Your task to perform on an android device: turn pop-ups on in chrome Image 0: 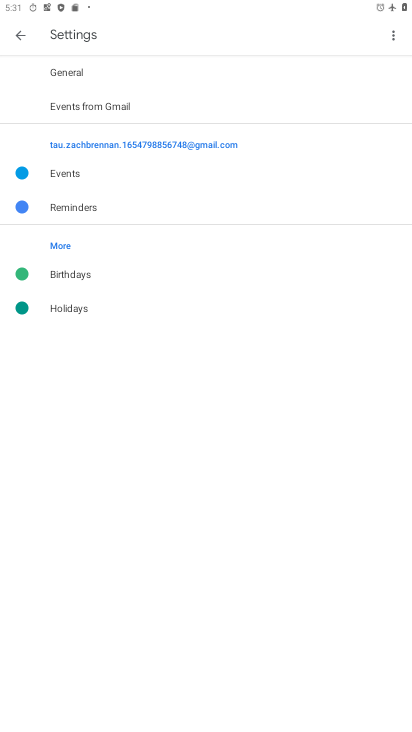
Step 0: press home button
Your task to perform on an android device: turn pop-ups on in chrome Image 1: 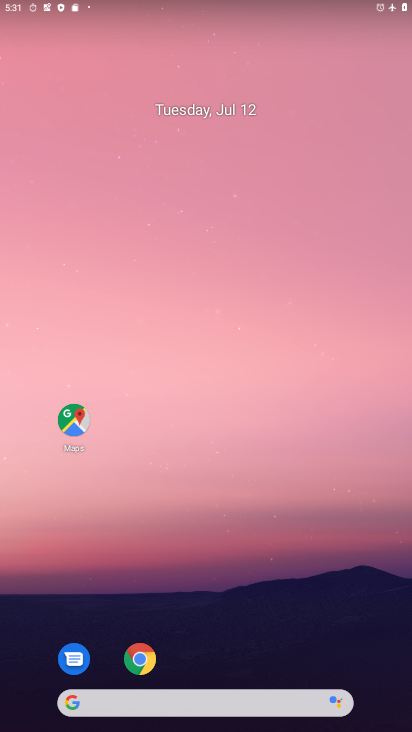
Step 1: click (139, 663)
Your task to perform on an android device: turn pop-ups on in chrome Image 2: 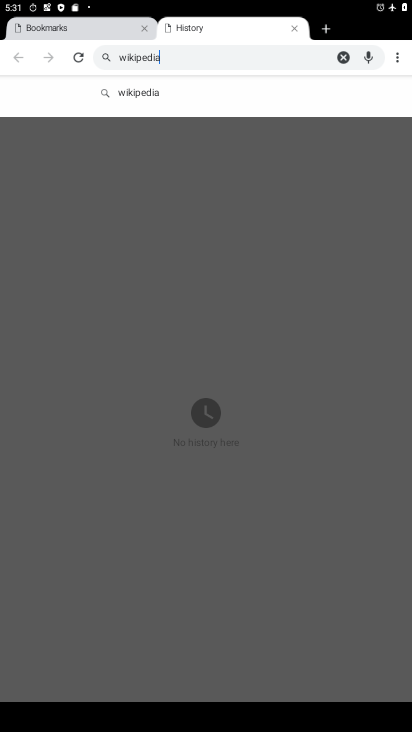
Step 2: click (398, 62)
Your task to perform on an android device: turn pop-ups on in chrome Image 3: 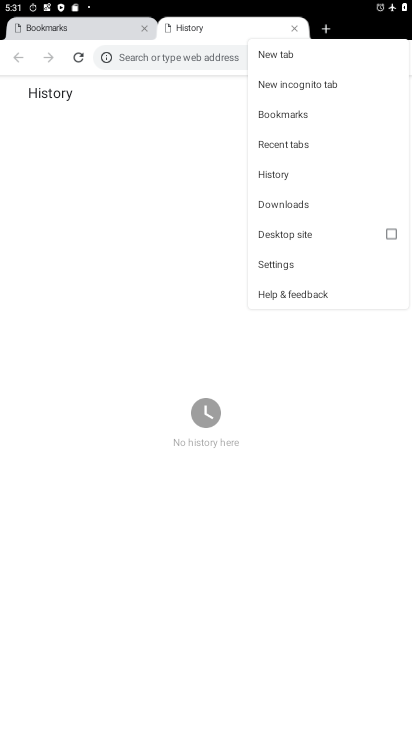
Step 3: click (272, 264)
Your task to perform on an android device: turn pop-ups on in chrome Image 4: 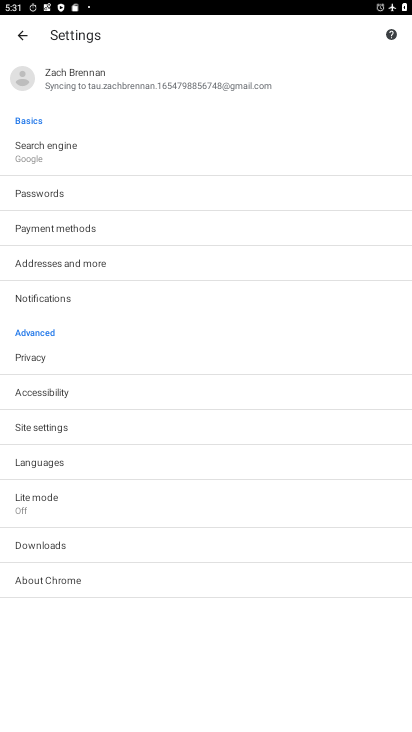
Step 4: click (76, 435)
Your task to perform on an android device: turn pop-ups on in chrome Image 5: 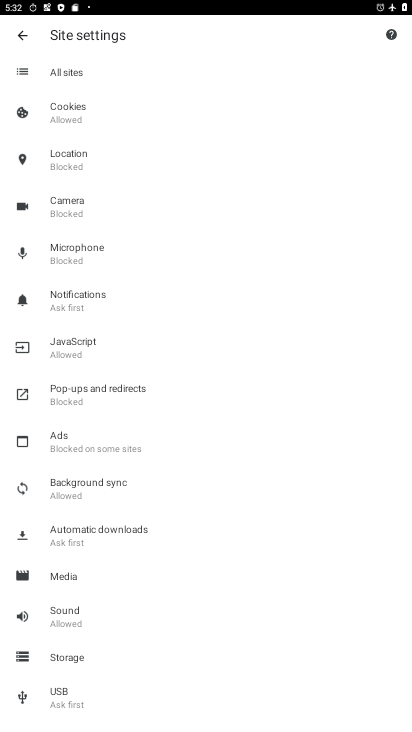
Step 5: click (106, 398)
Your task to perform on an android device: turn pop-ups on in chrome Image 6: 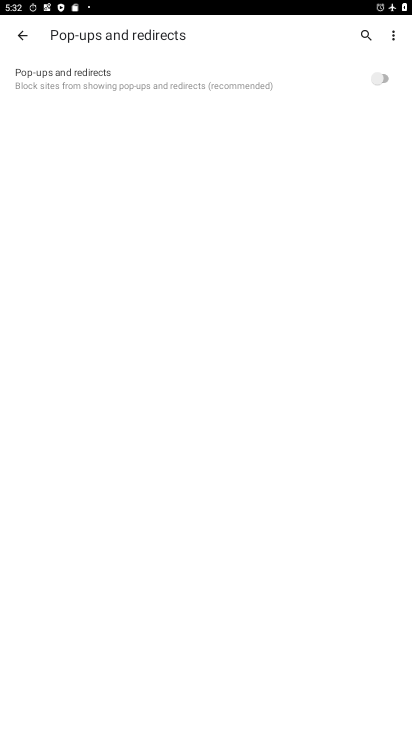
Step 6: task complete